Your task to perform on an android device: Open the Play Movies app and select the watchlist tab. Image 0: 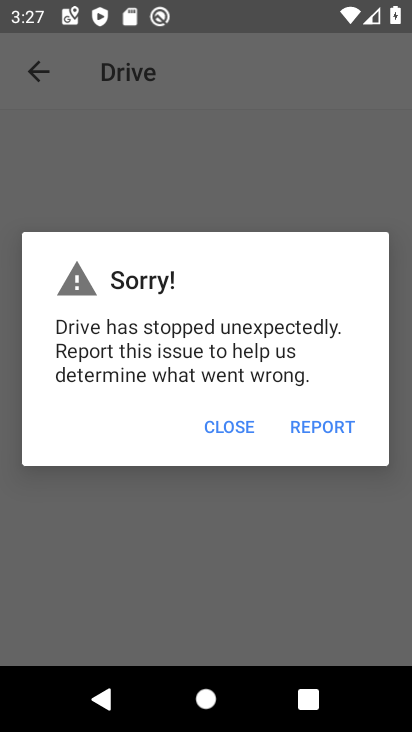
Step 0: press home button
Your task to perform on an android device: Open the Play Movies app and select the watchlist tab. Image 1: 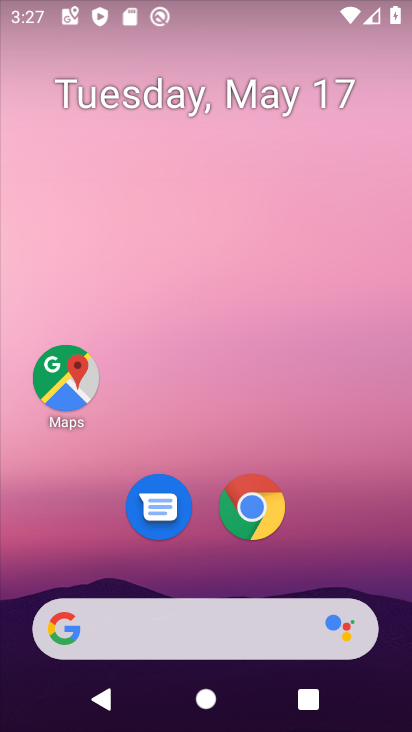
Step 1: drag from (357, 569) to (275, 131)
Your task to perform on an android device: Open the Play Movies app and select the watchlist tab. Image 2: 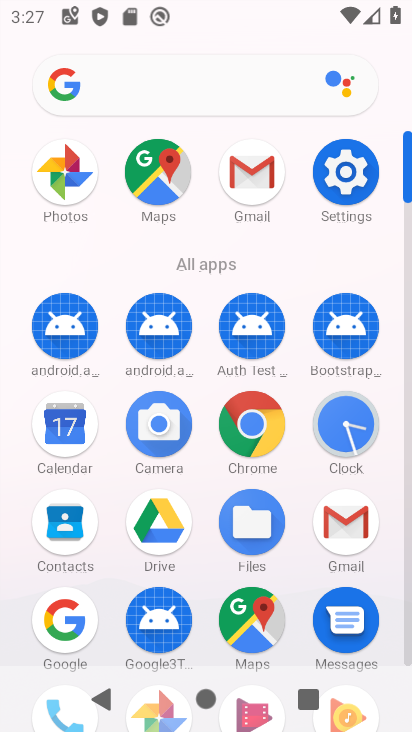
Step 2: drag from (288, 583) to (292, 243)
Your task to perform on an android device: Open the Play Movies app and select the watchlist tab. Image 3: 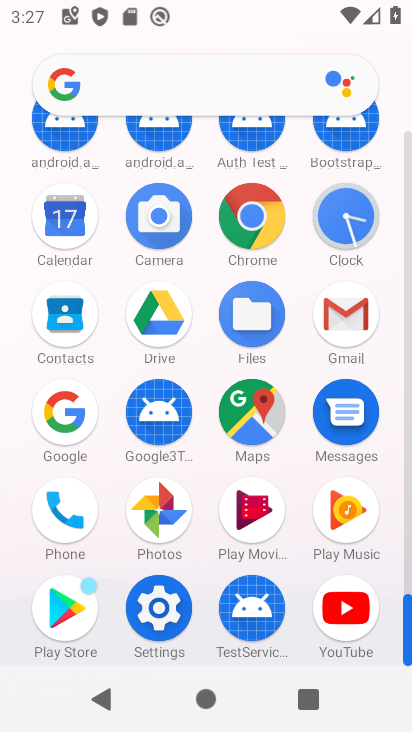
Step 3: click (257, 519)
Your task to perform on an android device: Open the Play Movies app and select the watchlist tab. Image 4: 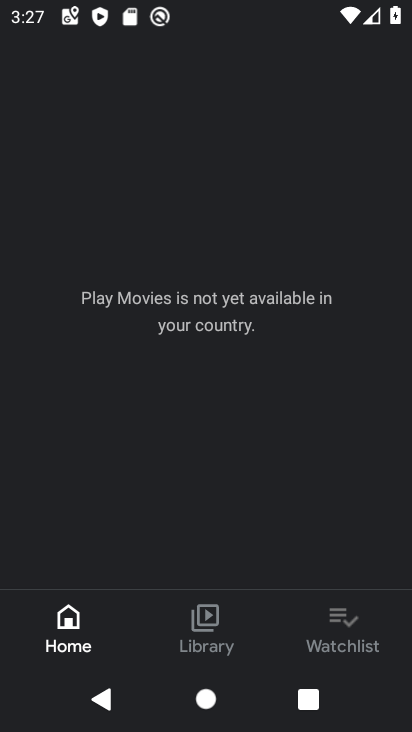
Step 4: click (351, 614)
Your task to perform on an android device: Open the Play Movies app and select the watchlist tab. Image 5: 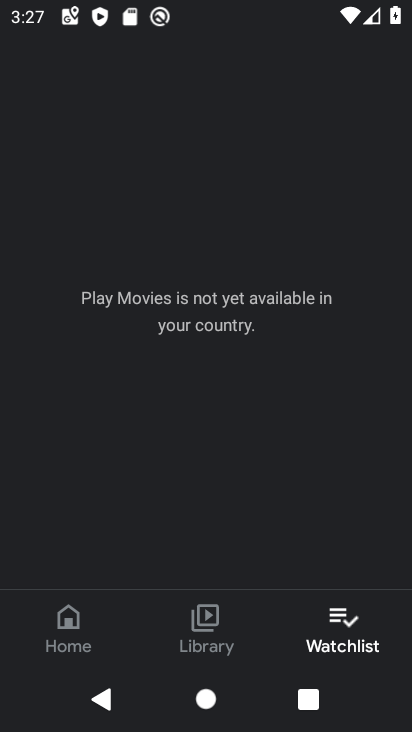
Step 5: task complete